Your task to perform on an android device: toggle javascript in the chrome app Image 0: 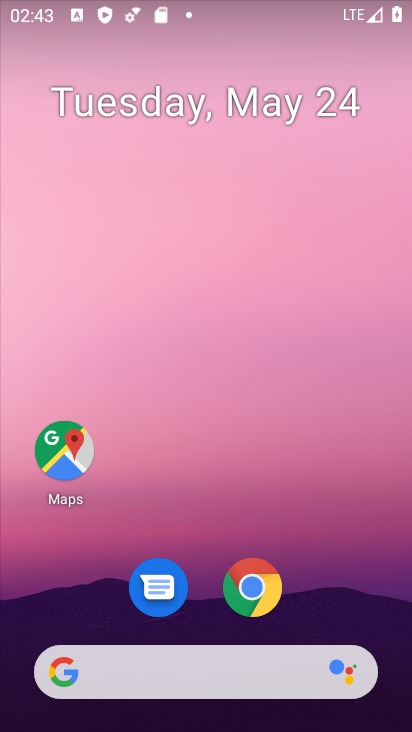
Step 0: click (261, 606)
Your task to perform on an android device: toggle javascript in the chrome app Image 1: 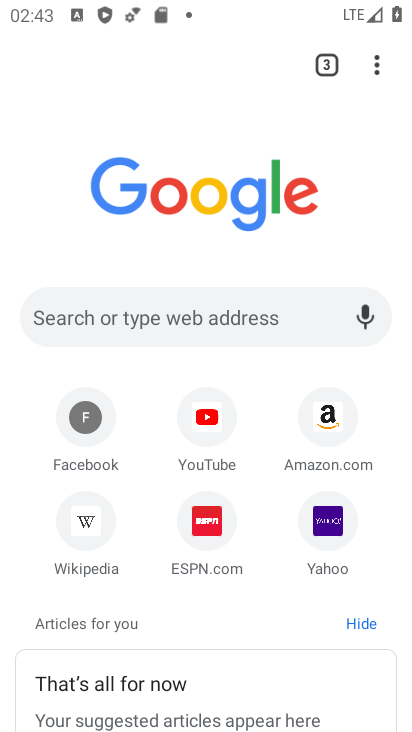
Step 1: click (369, 58)
Your task to perform on an android device: toggle javascript in the chrome app Image 2: 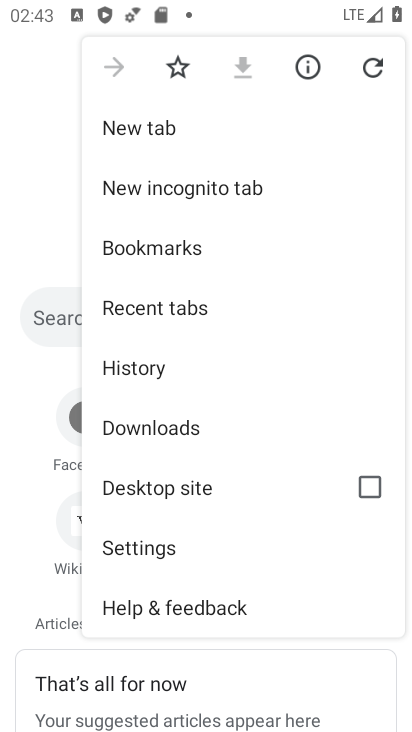
Step 2: click (162, 528)
Your task to perform on an android device: toggle javascript in the chrome app Image 3: 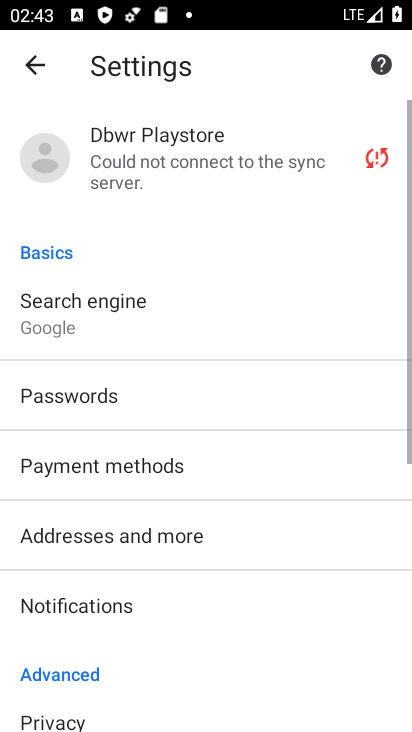
Step 3: drag from (117, 485) to (167, 133)
Your task to perform on an android device: toggle javascript in the chrome app Image 4: 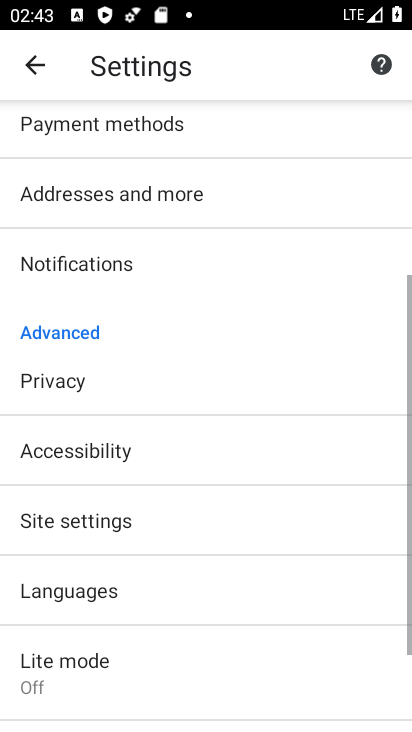
Step 4: click (120, 525)
Your task to perform on an android device: toggle javascript in the chrome app Image 5: 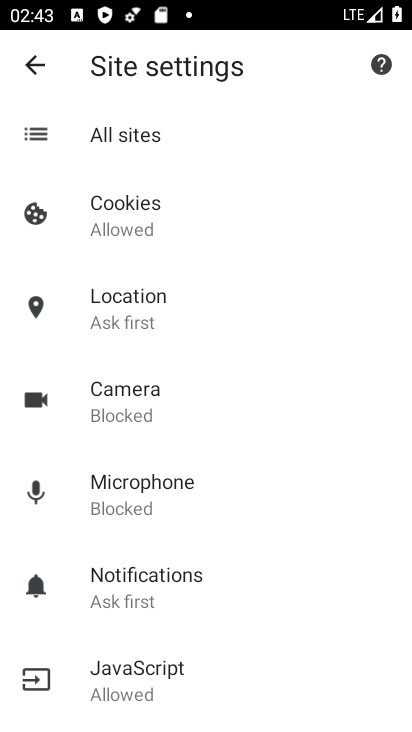
Step 5: click (165, 676)
Your task to perform on an android device: toggle javascript in the chrome app Image 6: 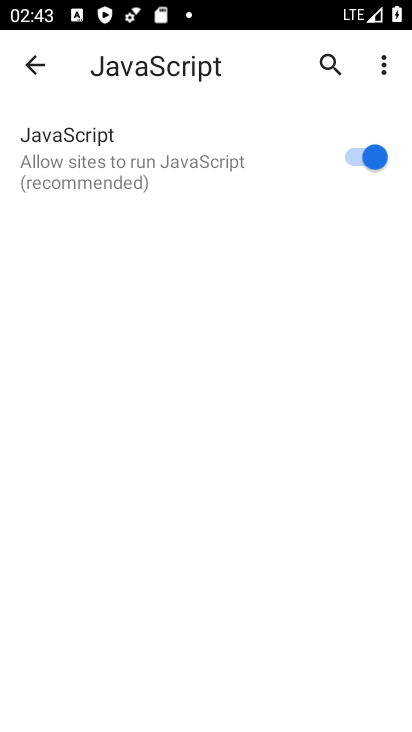
Step 6: click (368, 156)
Your task to perform on an android device: toggle javascript in the chrome app Image 7: 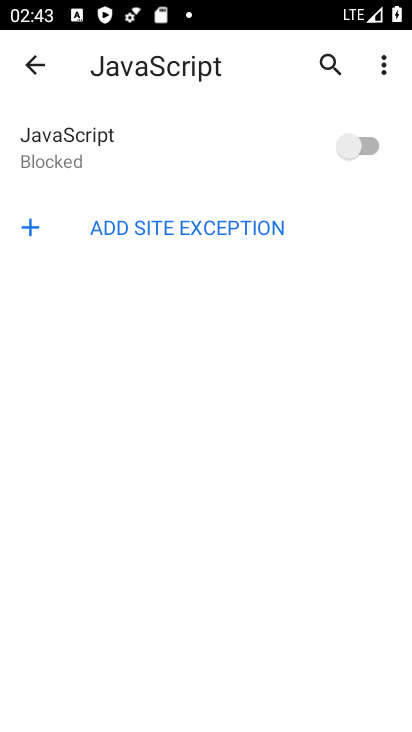
Step 7: task complete